Your task to perform on an android device: open wifi settings Image 0: 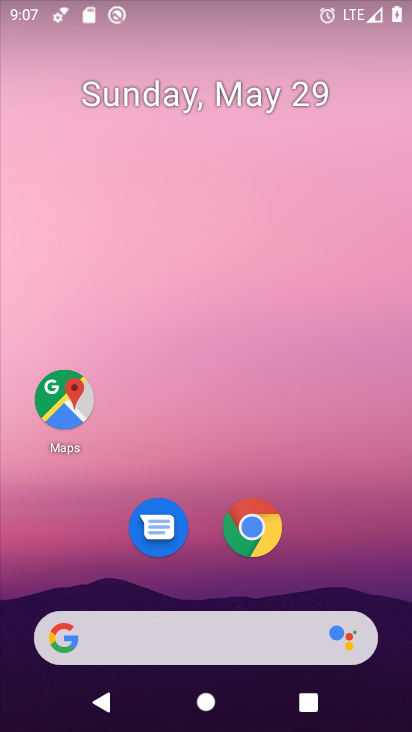
Step 0: press home button
Your task to perform on an android device: open wifi settings Image 1: 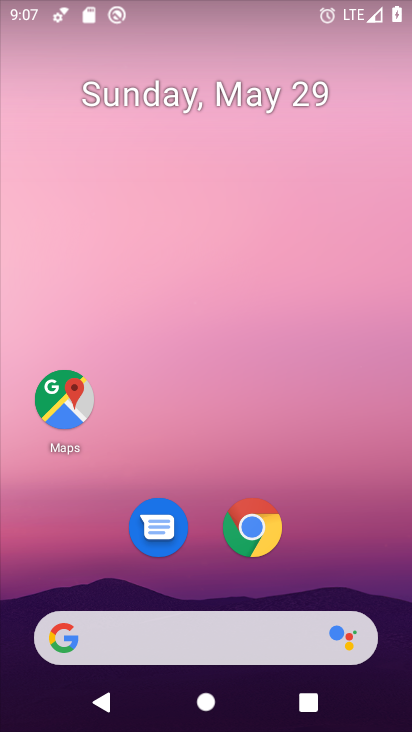
Step 1: drag from (207, 579) to (209, 114)
Your task to perform on an android device: open wifi settings Image 2: 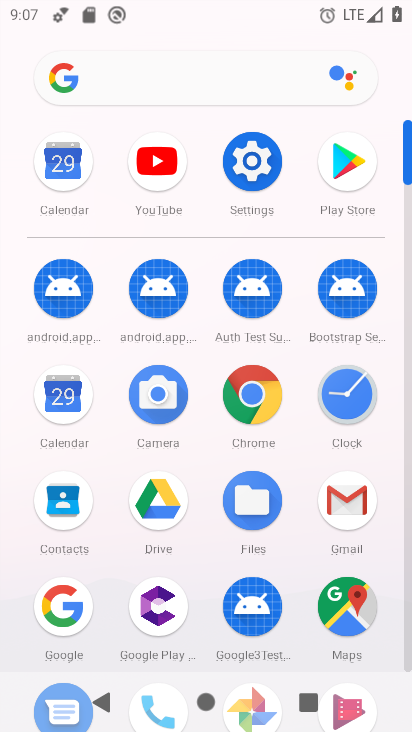
Step 2: click (248, 148)
Your task to perform on an android device: open wifi settings Image 3: 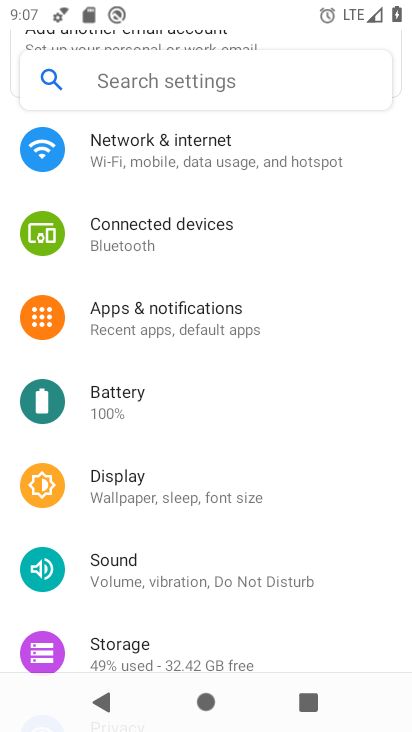
Step 3: click (185, 150)
Your task to perform on an android device: open wifi settings Image 4: 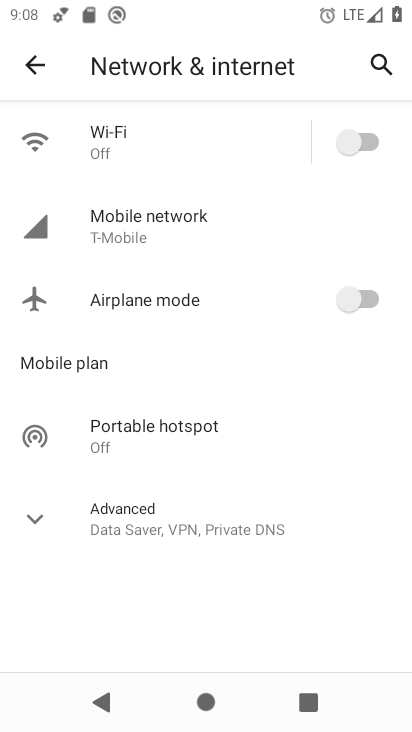
Step 4: click (154, 127)
Your task to perform on an android device: open wifi settings Image 5: 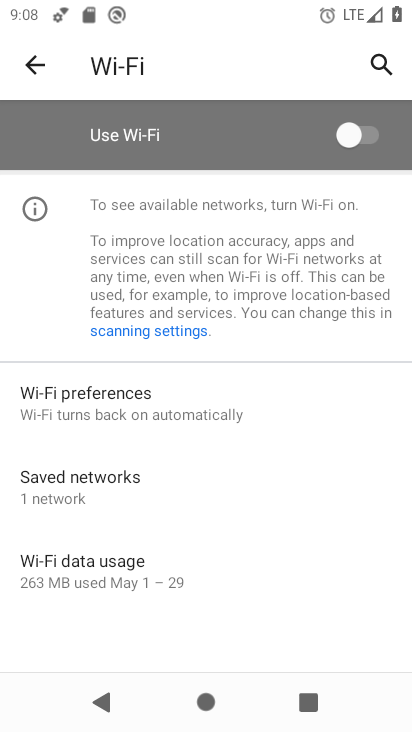
Step 5: click (359, 131)
Your task to perform on an android device: open wifi settings Image 6: 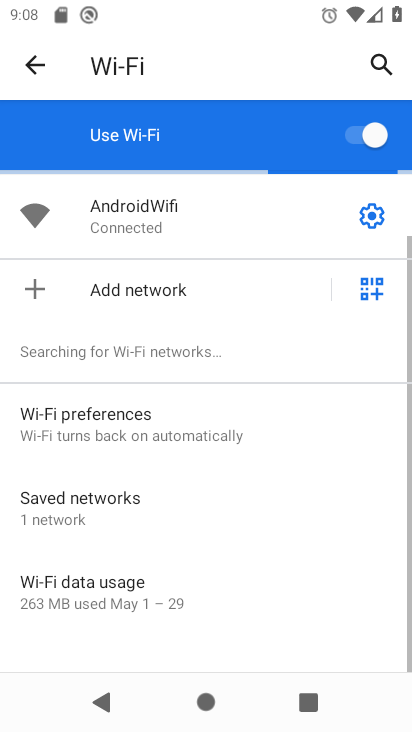
Step 6: task complete